Your task to perform on an android device: turn notification dots off Image 0: 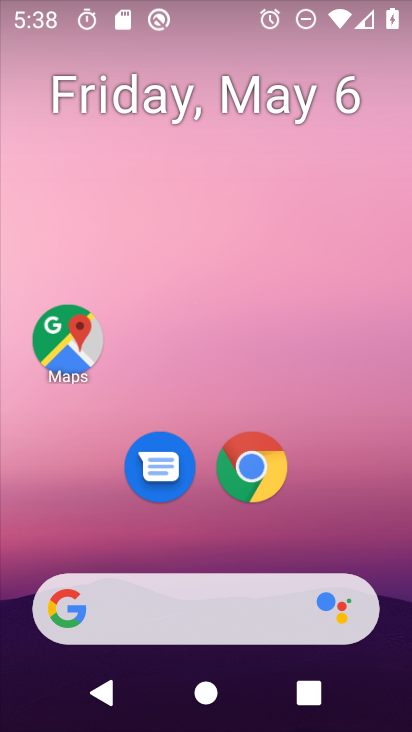
Step 0: drag from (326, 506) to (240, 50)
Your task to perform on an android device: turn notification dots off Image 1: 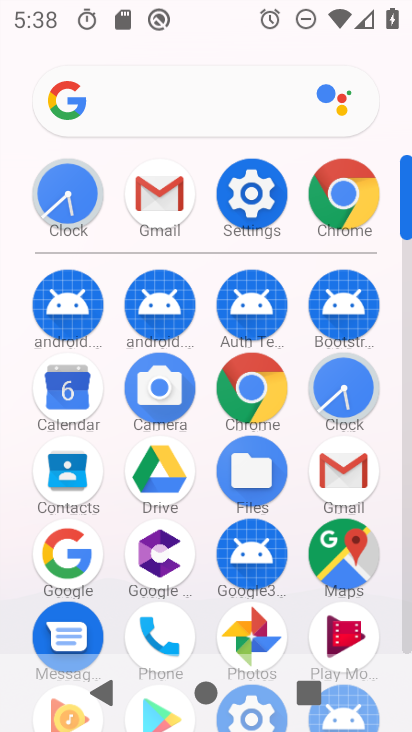
Step 1: click (234, 201)
Your task to perform on an android device: turn notification dots off Image 2: 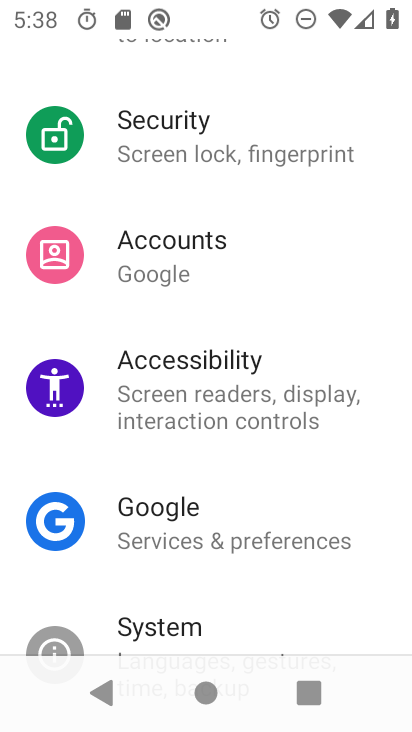
Step 2: drag from (285, 541) to (186, 145)
Your task to perform on an android device: turn notification dots off Image 3: 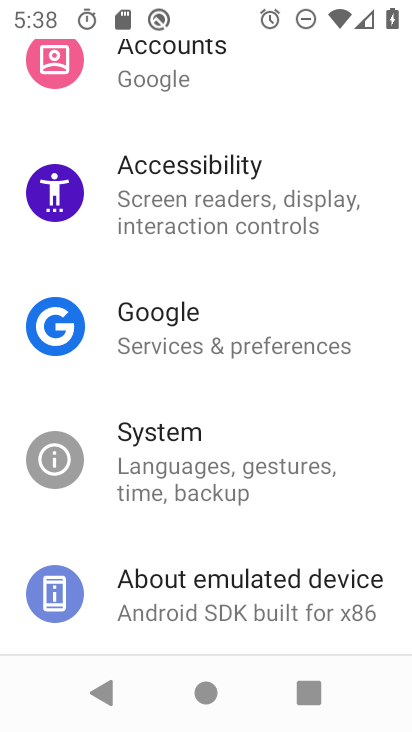
Step 3: drag from (226, 560) to (208, 393)
Your task to perform on an android device: turn notification dots off Image 4: 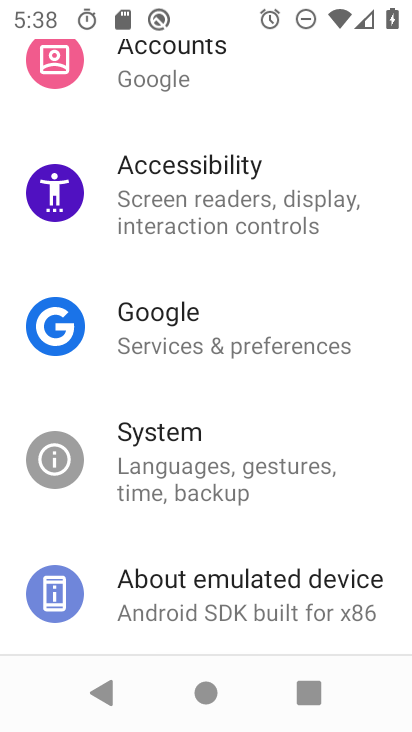
Step 4: drag from (200, 268) to (181, 659)
Your task to perform on an android device: turn notification dots off Image 5: 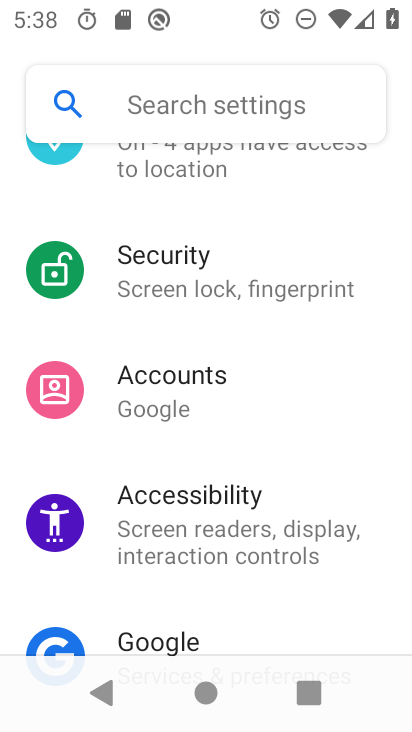
Step 5: drag from (209, 386) to (212, 632)
Your task to perform on an android device: turn notification dots off Image 6: 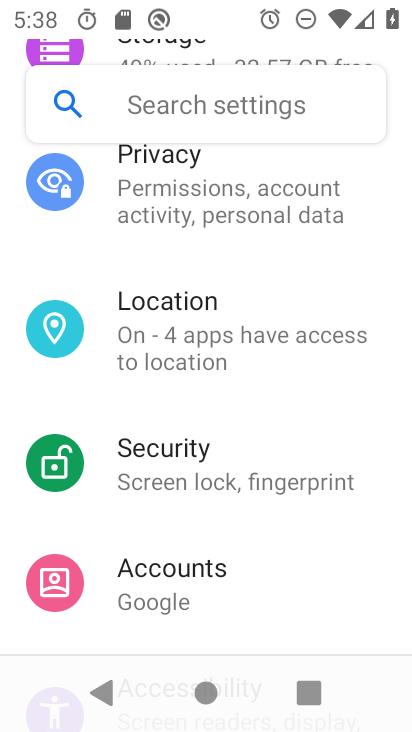
Step 6: drag from (265, 287) to (251, 580)
Your task to perform on an android device: turn notification dots off Image 7: 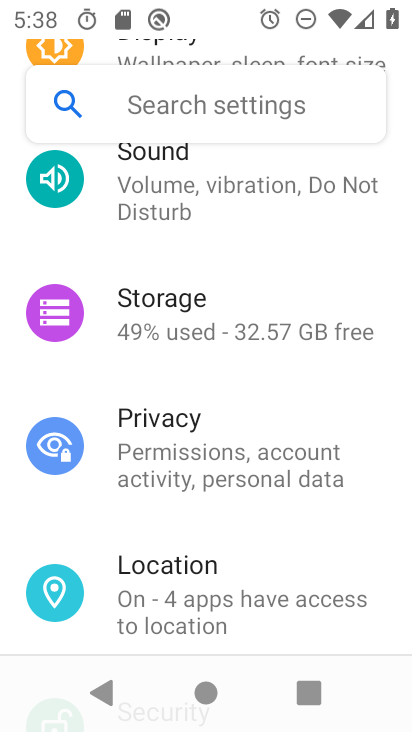
Step 7: drag from (232, 271) to (230, 478)
Your task to perform on an android device: turn notification dots off Image 8: 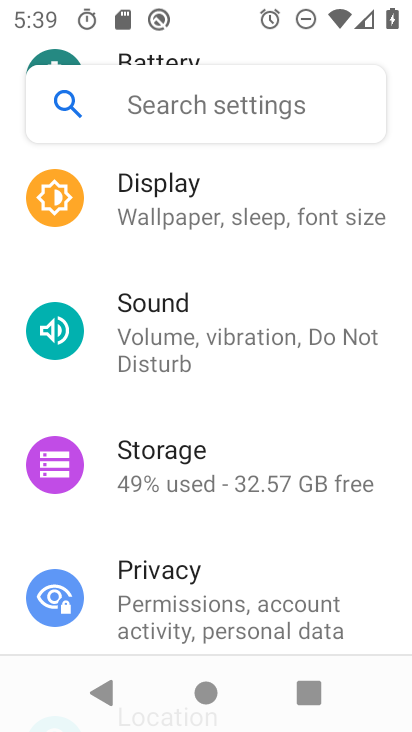
Step 8: drag from (249, 208) to (245, 479)
Your task to perform on an android device: turn notification dots off Image 9: 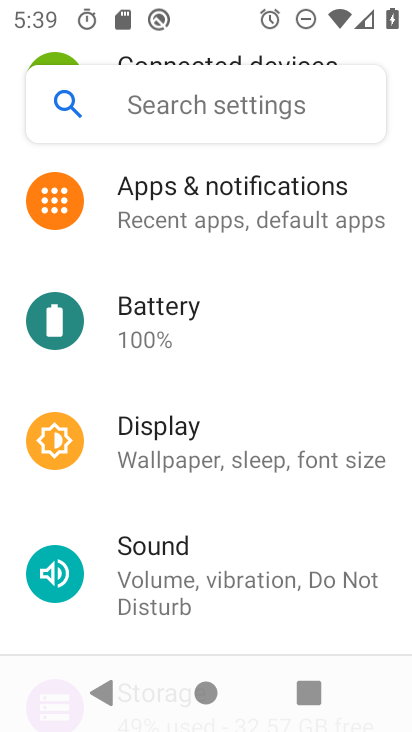
Step 9: drag from (235, 295) to (235, 586)
Your task to perform on an android device: turn notification dots off Image 10: 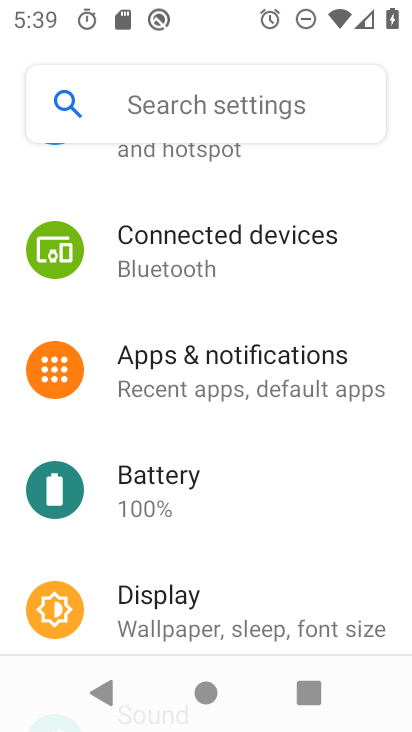
Step 10: click (226, 373)
Your task to perform on an android device: turn notification dots off Image 11: 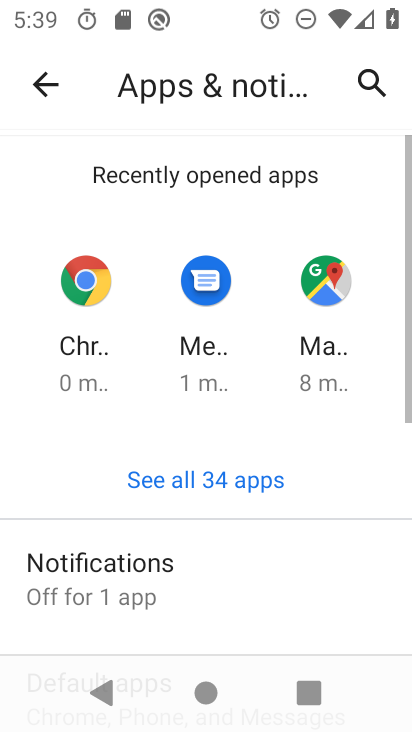
Step 11: drag from (274, 589) to (253, 242)
Your task to perform on an android device: turn notification dots off Image 12: 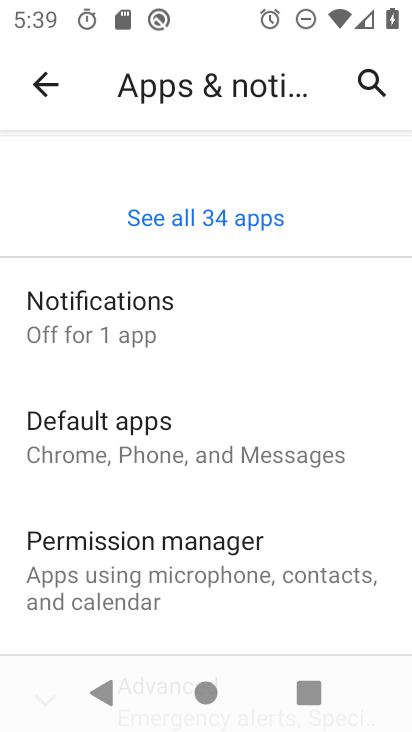
Step 12: drag from (241, 534) to (239, 294)
Your task to perform on an android device: turn notification dots off Image 13: 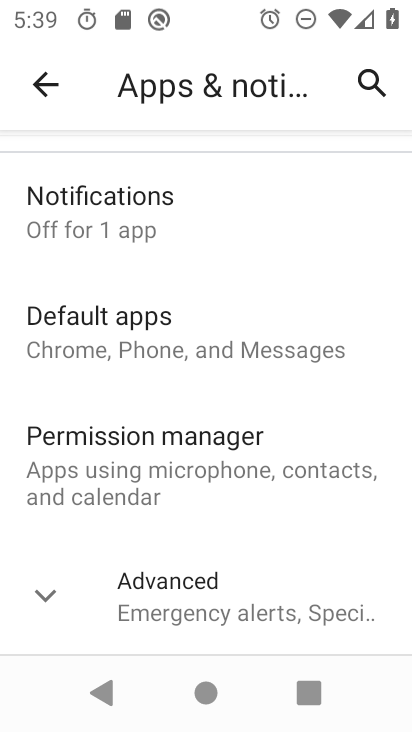
Step 13: click (181, 565)
Your task to perform on an android device: turn notification dots off Image 14: 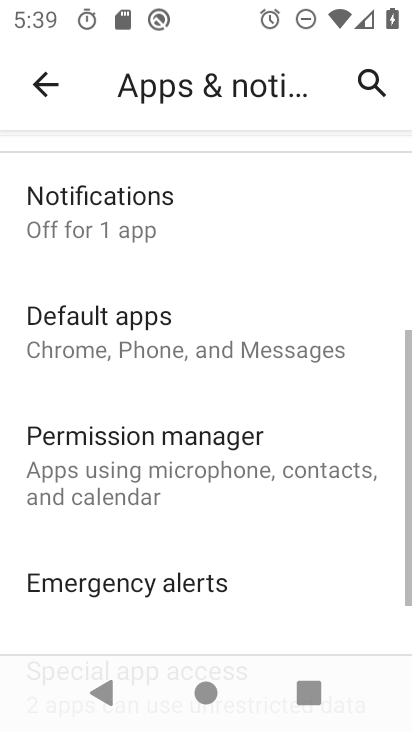
Step 14: drag from (186, 562) to (210, 351)
Your task to perform on an android device: turn notification dots off Image 15: 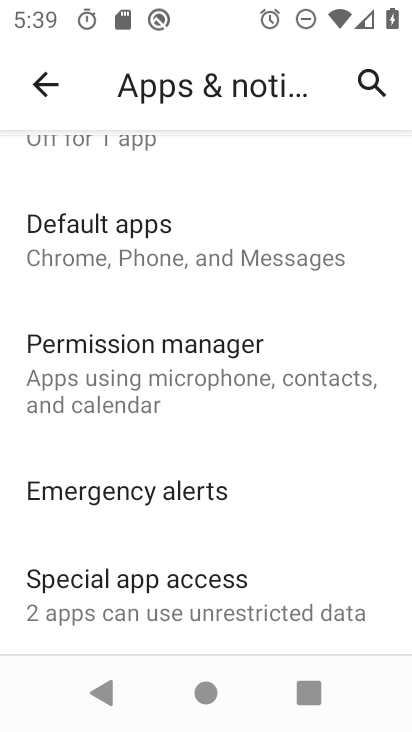
Step 15: drag from (211, 563) to (228, 301)
Your task to perform on an android device: turn notification dots off Image 16: 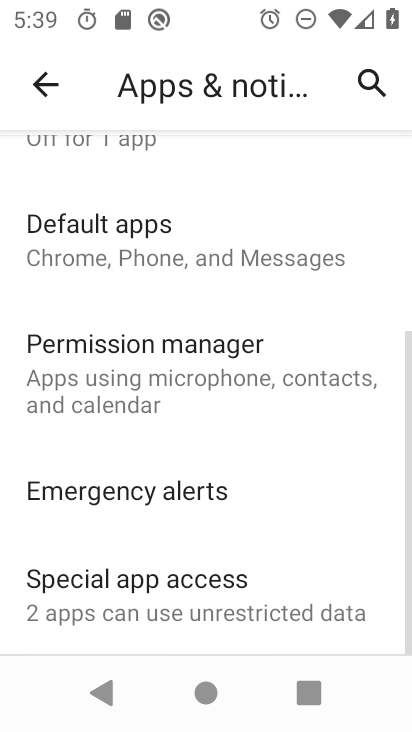
Step 16: drag from (103, 235) to (145, 581)
Your task to perform on an android device: turn notification dots off Image 17: 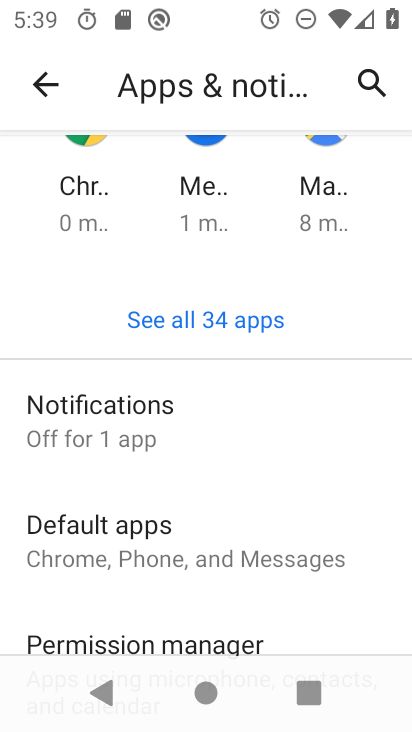
Step 17: click (92, 412)
Your task to perform on an android device: turn notification dots off Image 18: 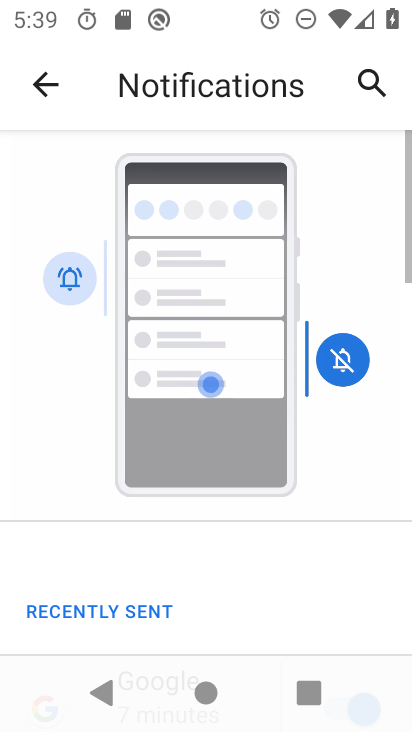
Step 18: drag from (220, 578) to (239, 280)
Your task to perform on an android device: turn notification dots off Image 19: 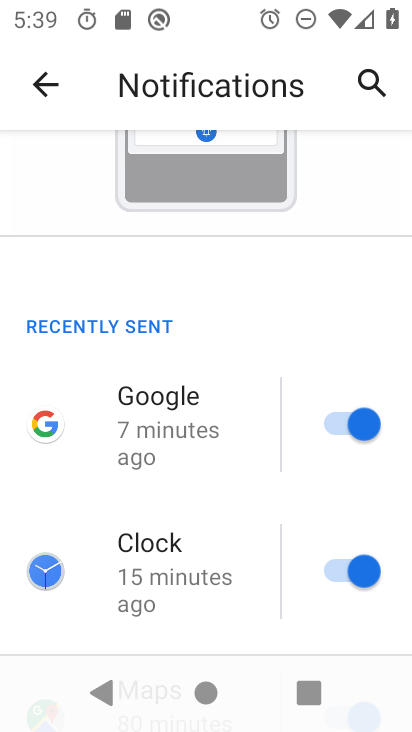
Step 19: drag from (196, 490) to (196, 197)
Your task to perform on an android device: turn notification dots off Image 20: 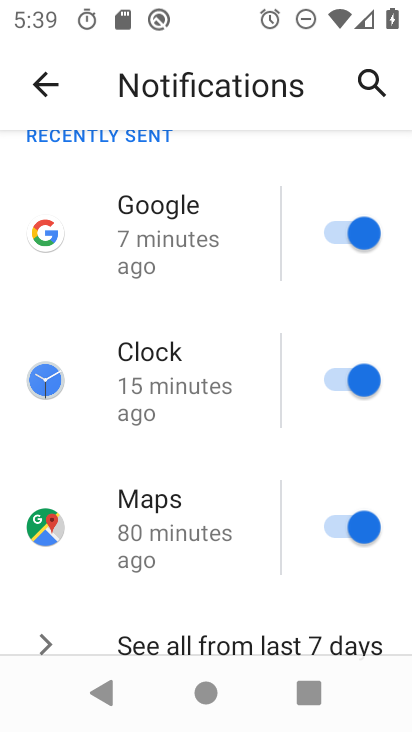
Step 20: drag from (227, 620) to (187, 130)
Your task to perform on an android device: turn notification dots off Image 21: 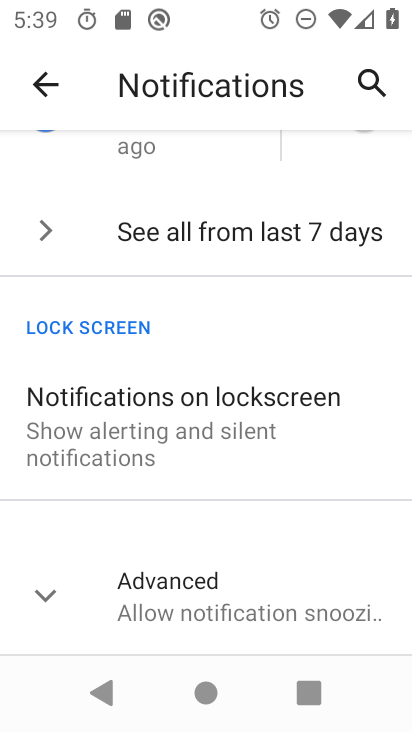
Step 21: drag from (219, 544) to (178, 236)
Your task to perform on an android device: turn notification dots off Image 22: 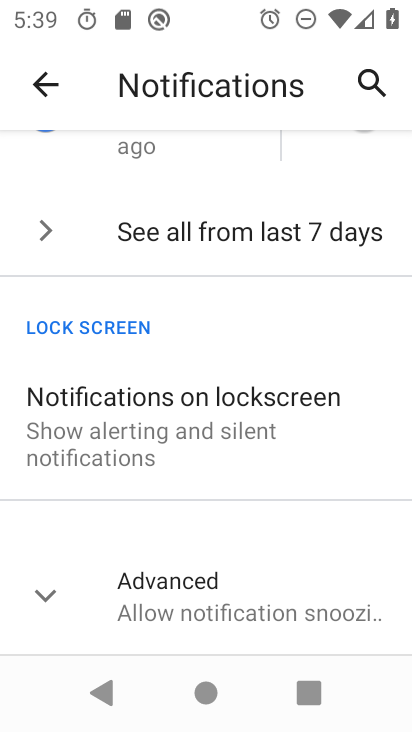
Step 22: click (182, 588)
Your task to perform on an android device: turn notification dots off Image 23: 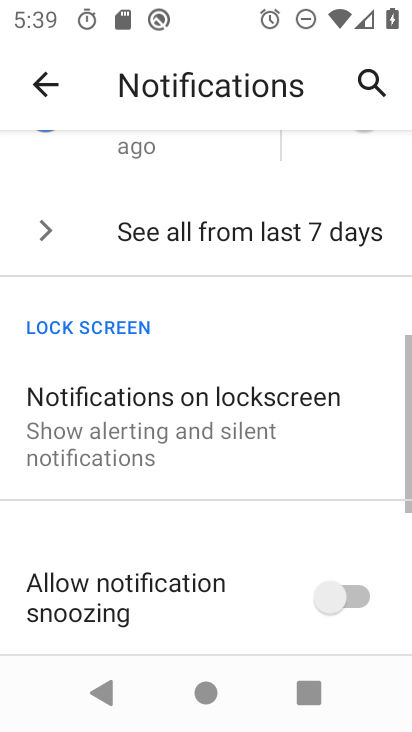
Step 23: task complete